Your task to perform on an android device: choose inbox layout in the gmail app Image 0: 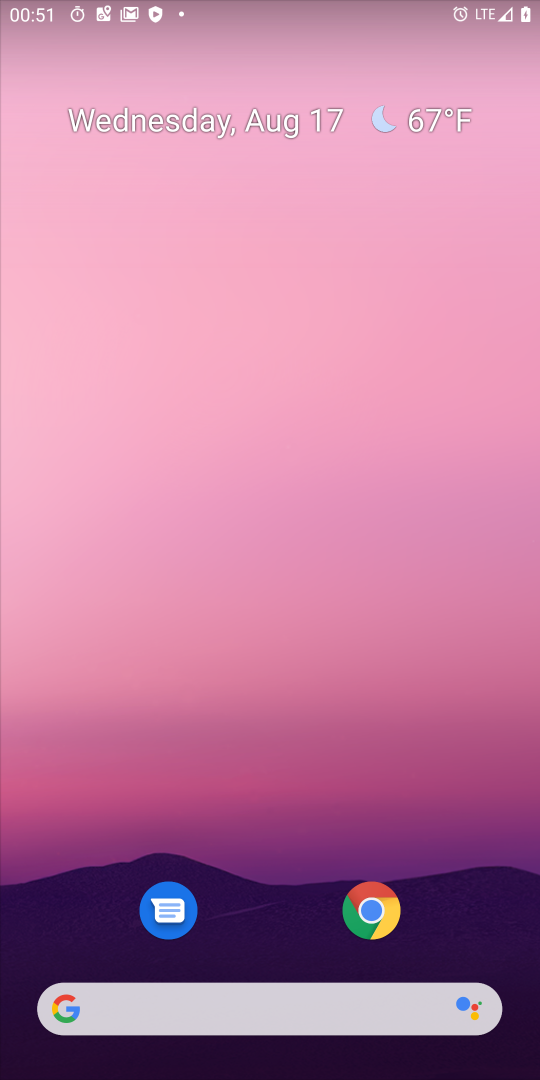
Step 0: drag from (247, 920) to (224, 107)
Your task to perform on an android device: choose inbox layout in the gmail app Image 1: 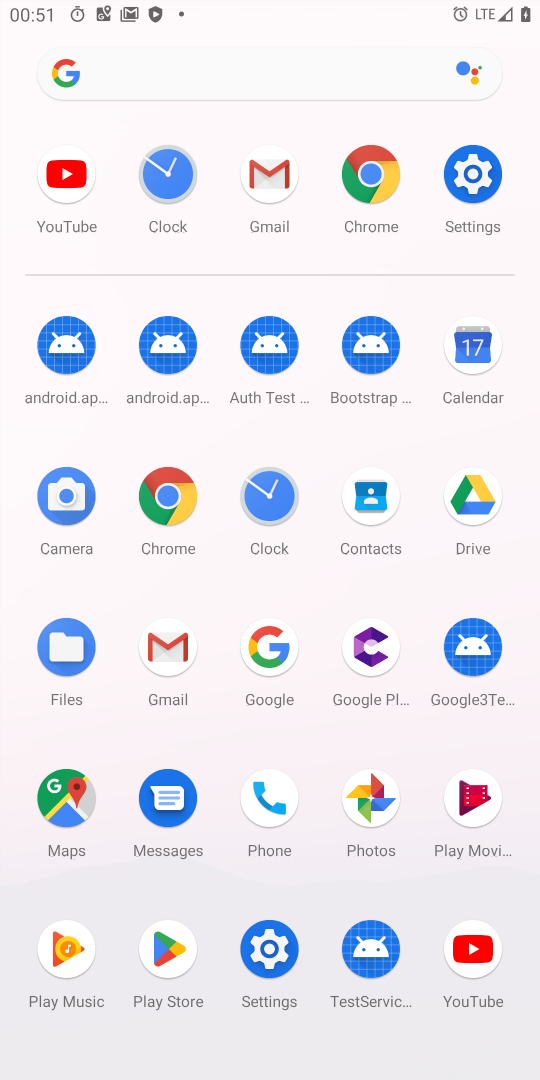
Step 1: click (165, 656)
Your task to perform on an android device: choose inbox layout in the gmail app Image 2: 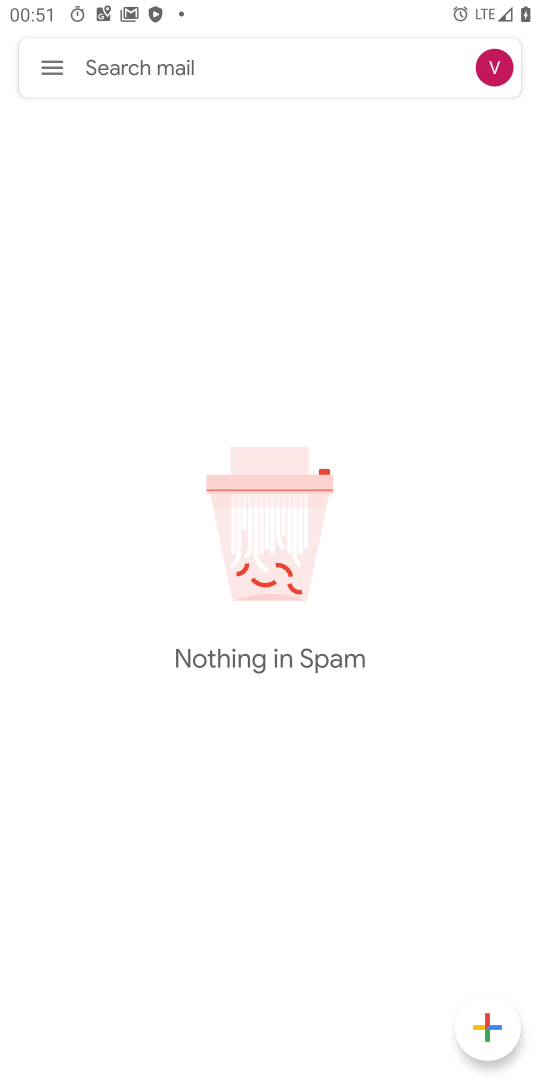
Step 2: click (54, 73)
Your task to perform on an android device: choose inbox layout in the gmail app Image 3: 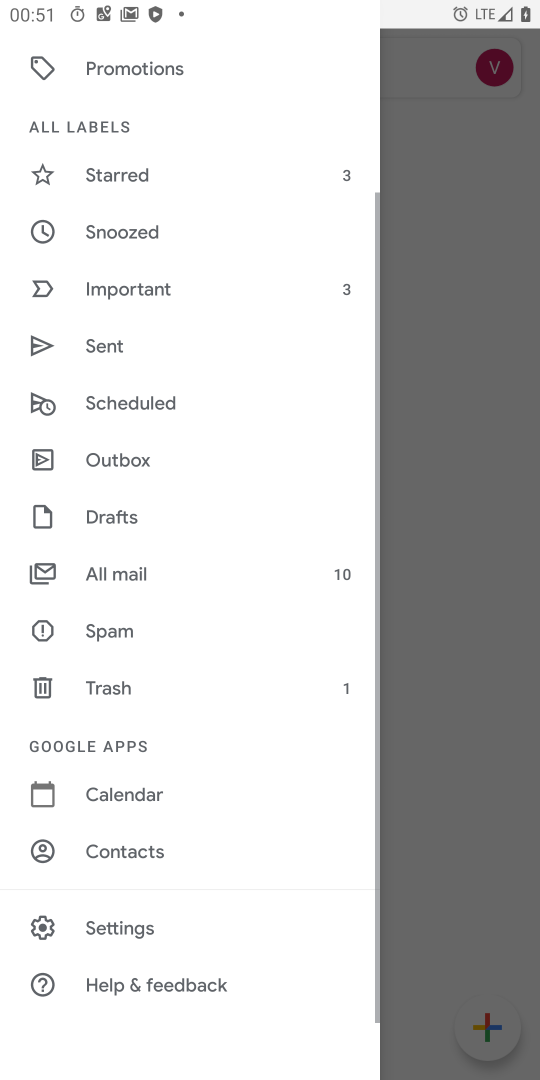
Step 3: click (156, 936)
Your task to perform on an android device: choose inbox layout in the gmail app Image 4: 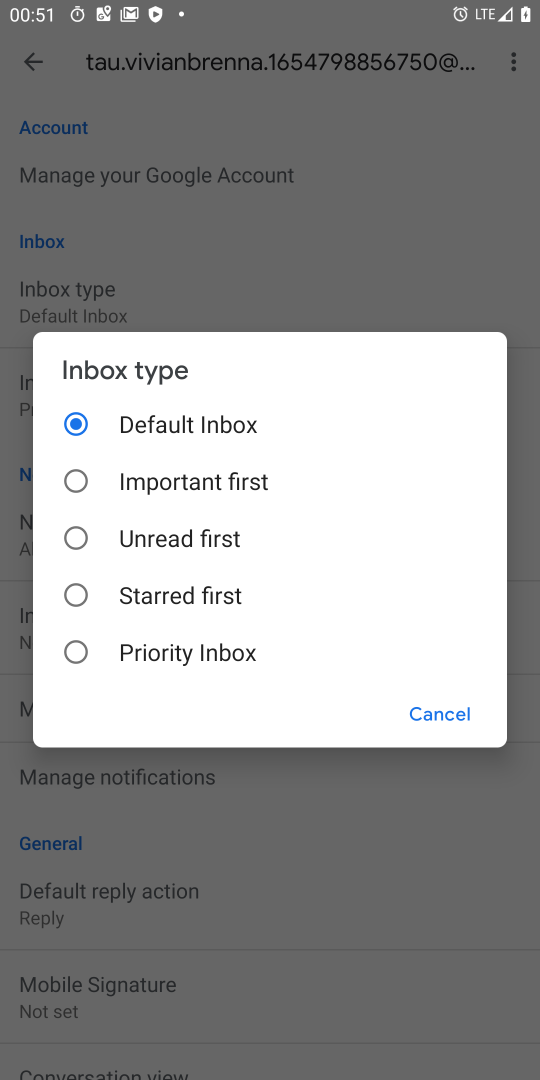
Step 4: task complete